Your task to perform on an android device: Search for energizer triple a on bestbuy.com, select the first entry, and add it to the cart. Image 0: 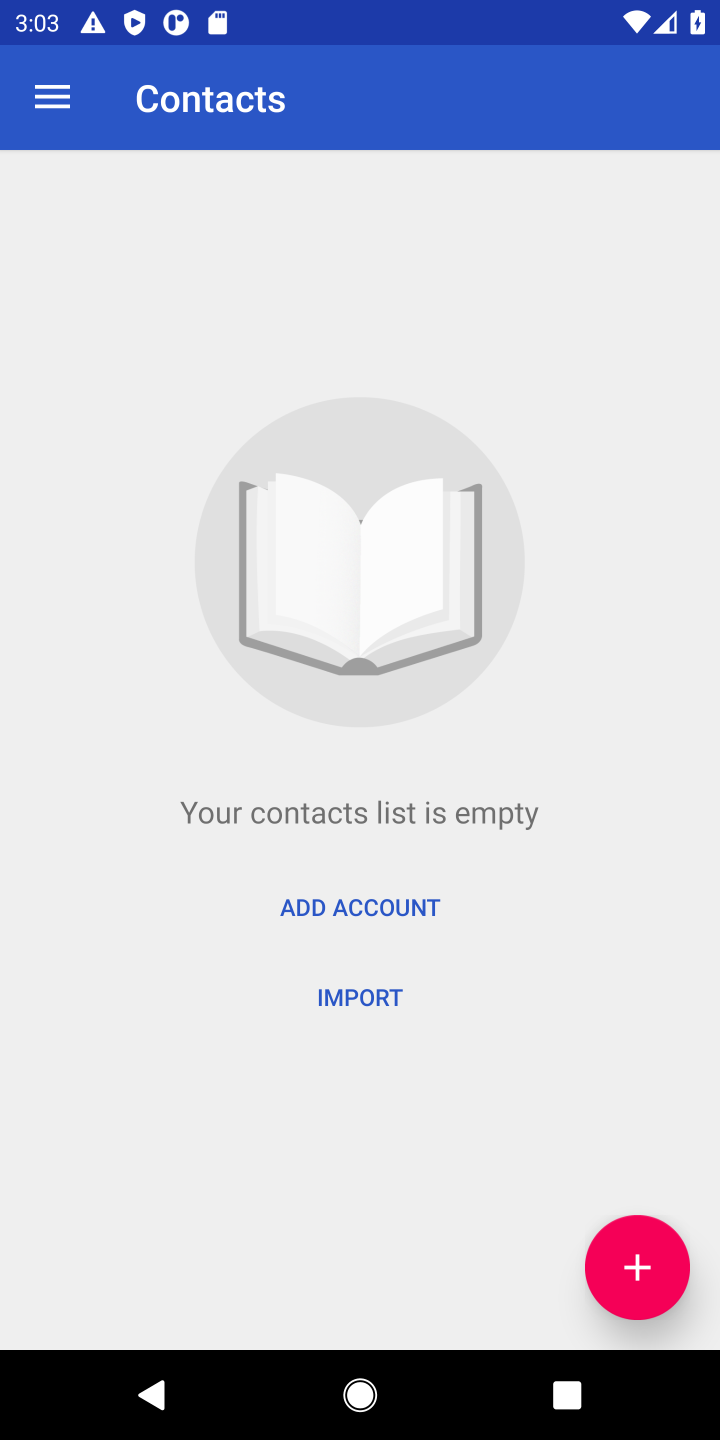
Step 0: press home button
Your task to perform on an android device: Search for energizer triple a on bestbuy.com, select the first entry, and add it to the cart. Image 1: 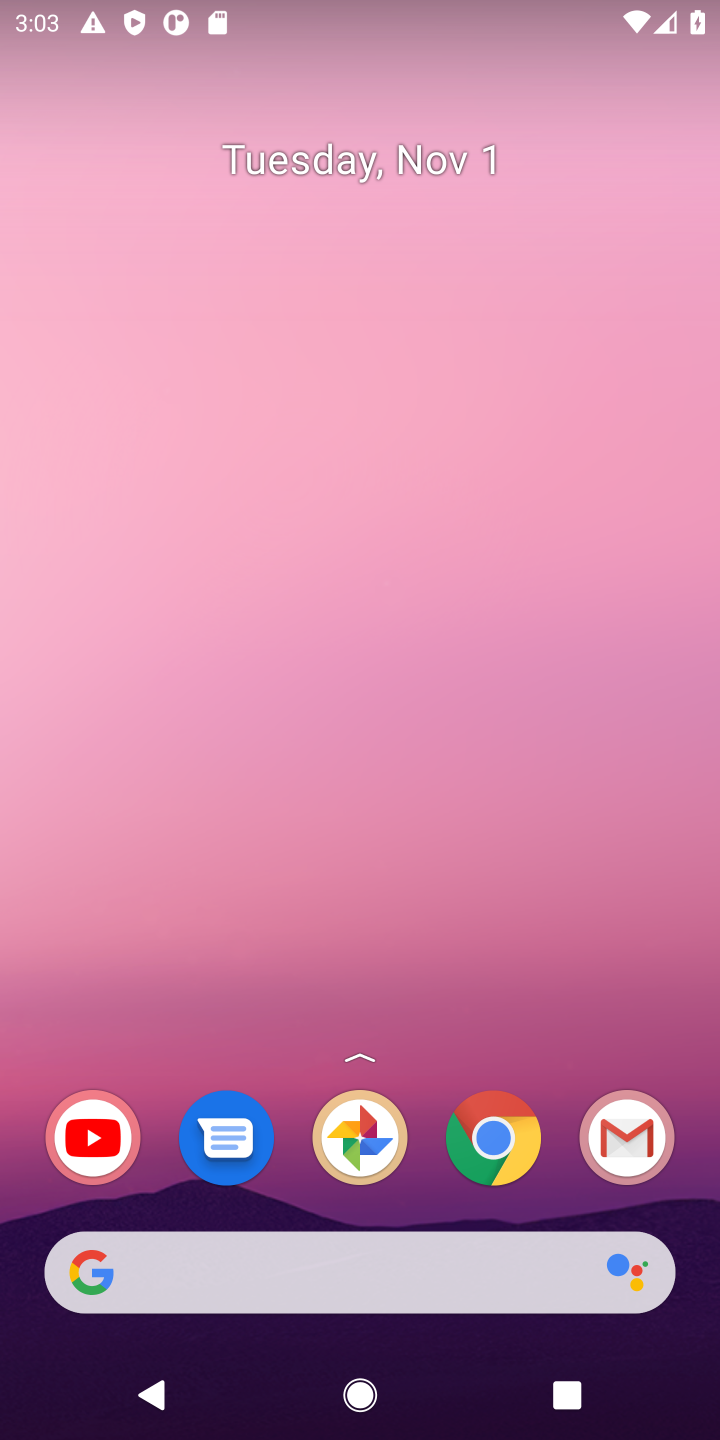
Step 1: click (495, 1143)
Your task to perform on an android device: Search for energizer triple a on bestbuy.com, select the first entry, and add it to the cart. Image 2: 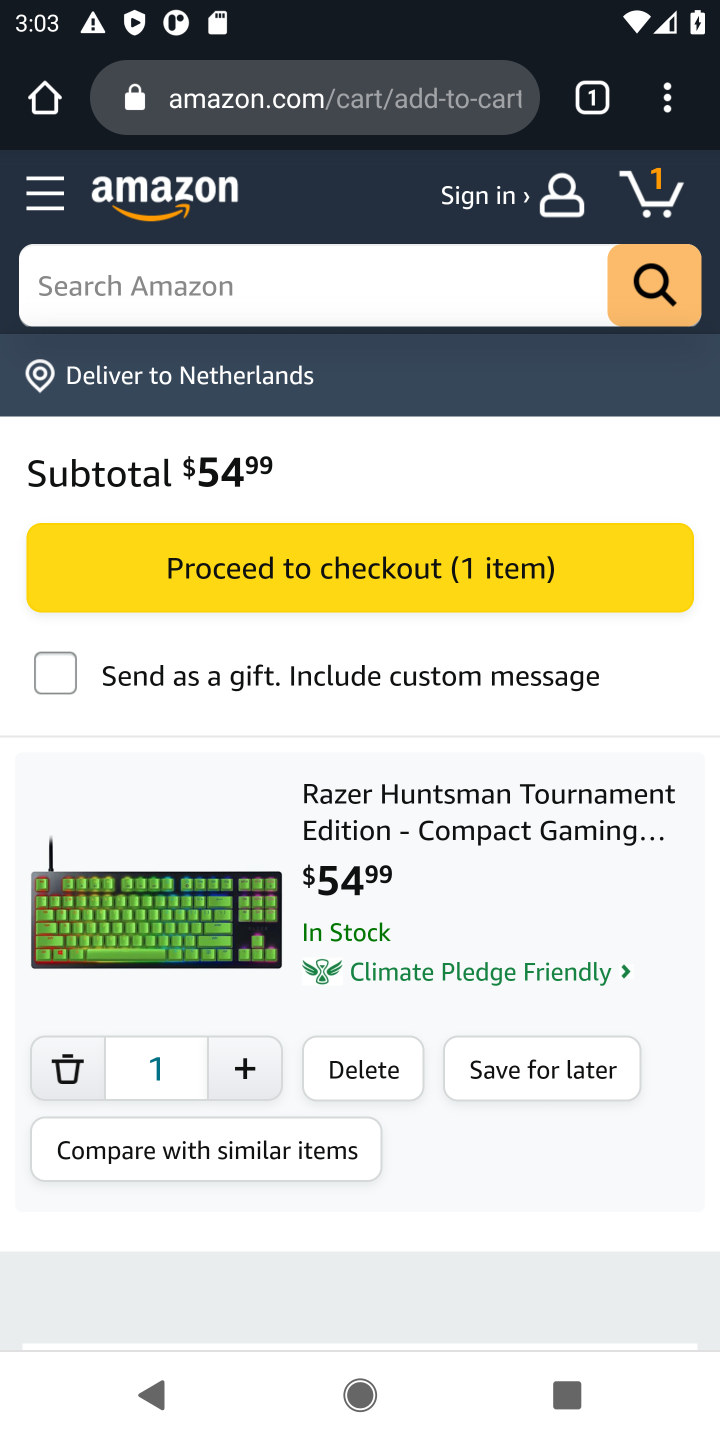
Step 2: click (242, 91)
Your task to perform on an android device: Search for energizer triple a on bestbuy.com, select the first entry, and add it to the cart. Image 3: 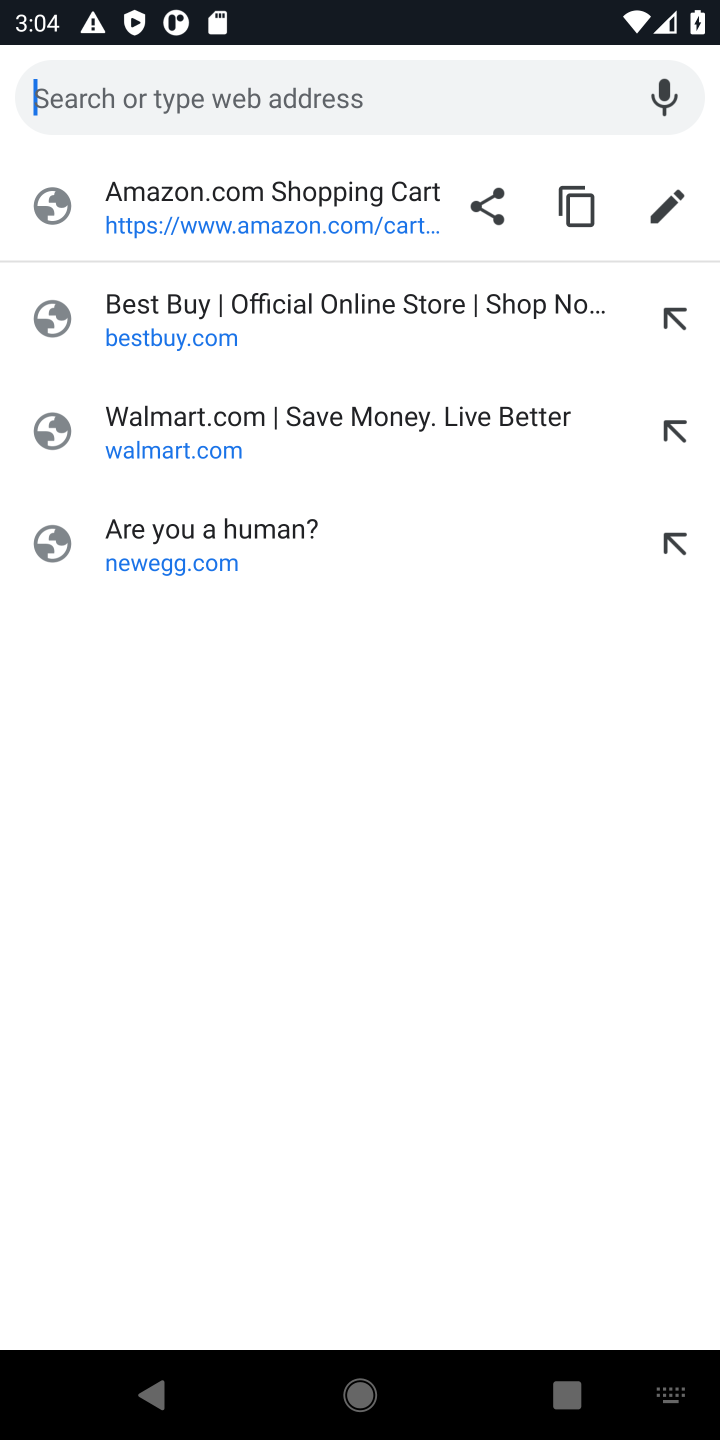
Step 3: type "bestbuy.com"
Your task to perform on an android device: Search for energizer triple a on bestbuy.com, select the first entry, and add it to the cart. Image 4: 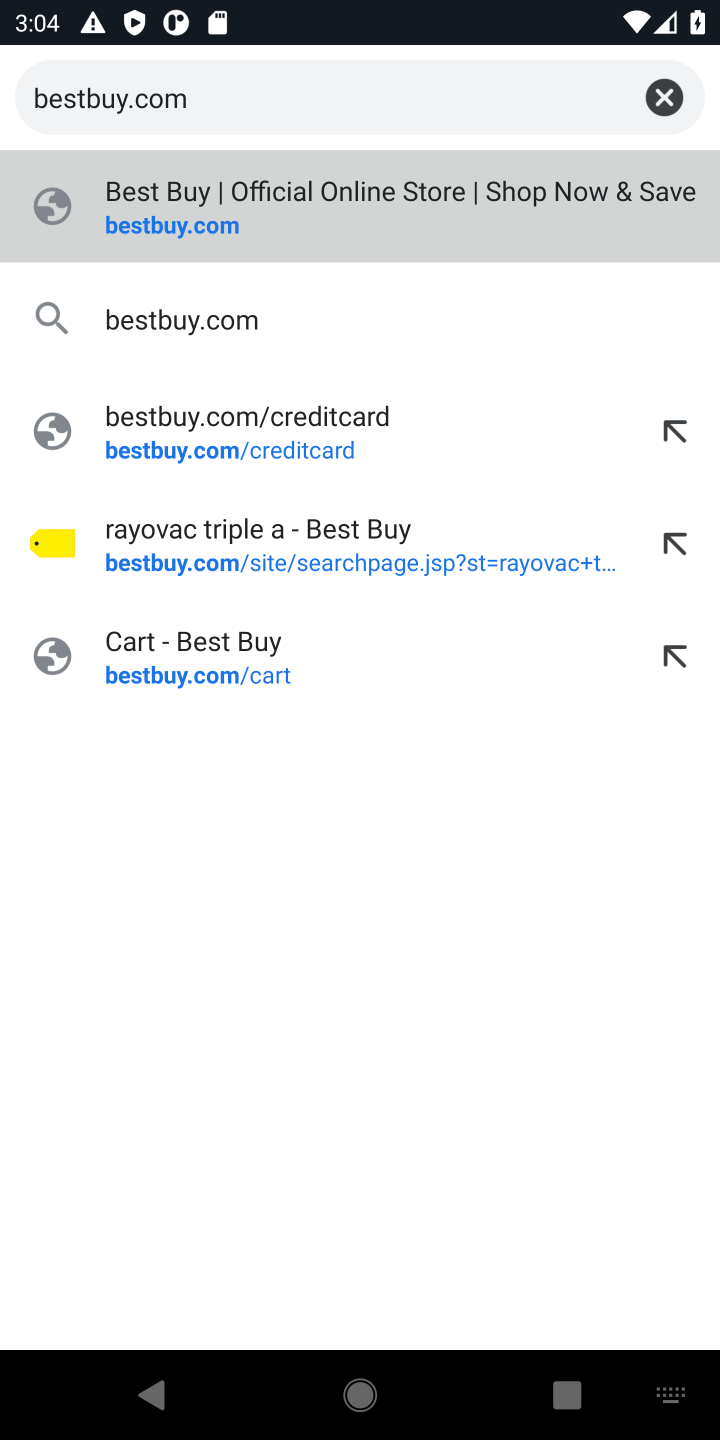
Step 4: click (246, 219)
Your task to perform on an android device: Search for energizer triple a on bestbuy.com, select the first entry, and add it to the cart. Image 5: 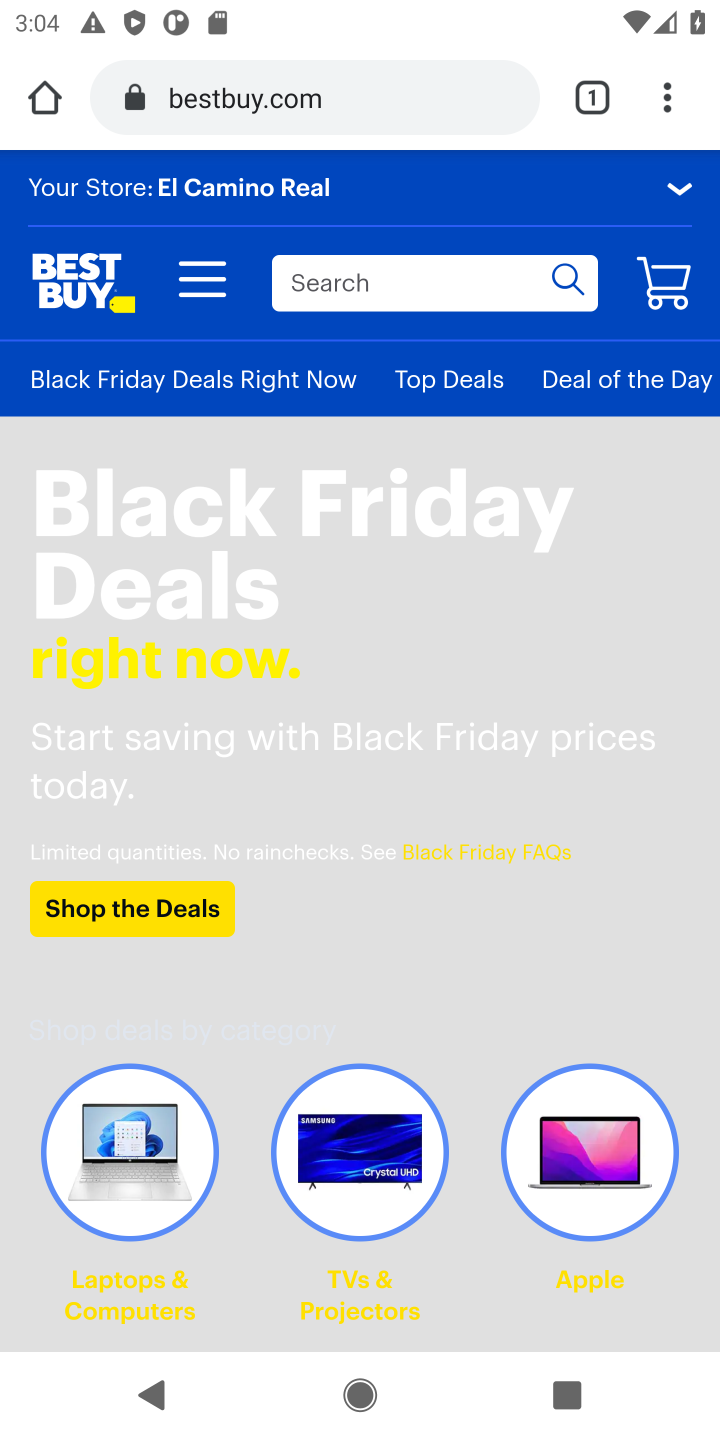
Step 5: click (354, 268)
Your task to perform on an android device: Search for energizer triple a on bestbuy.com, select the first entry, and add it to the cart. Image 6: 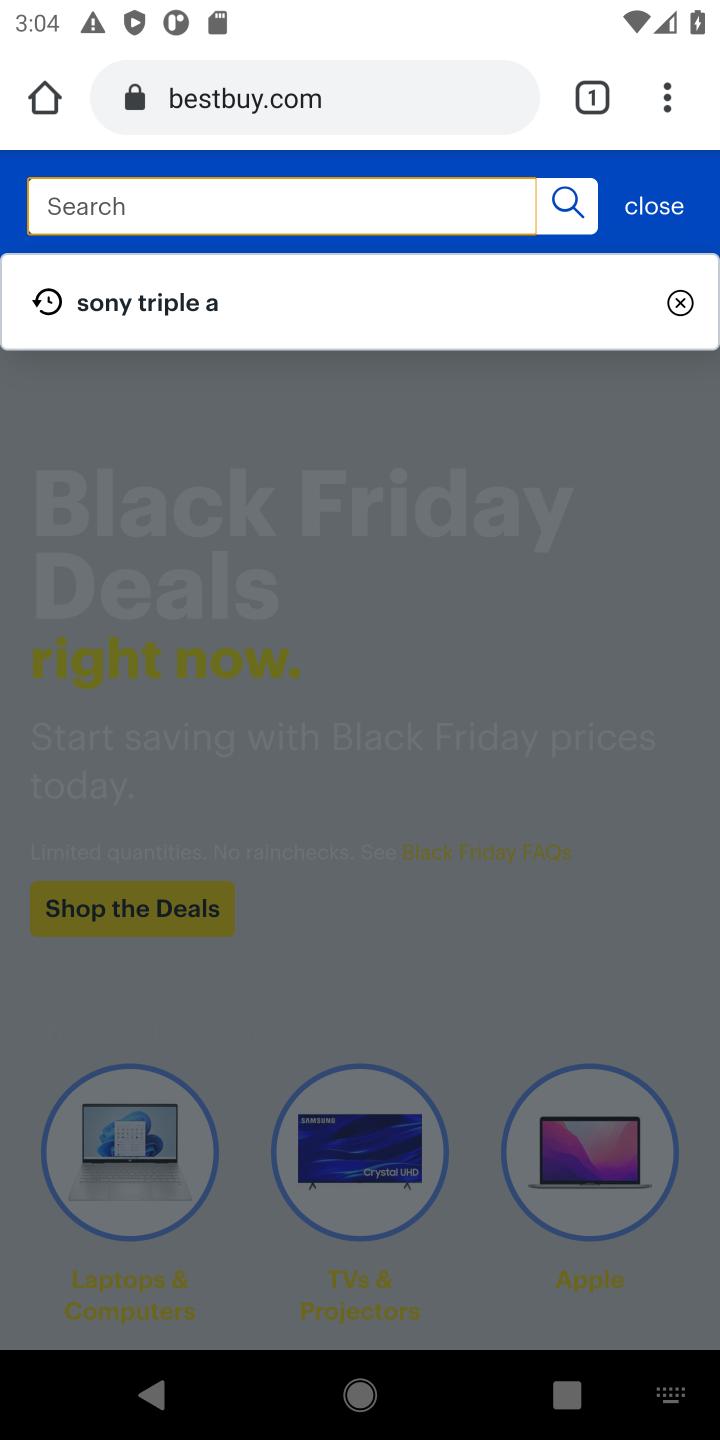
Step 6: type "energizer triple a"
Your task to perform on an android device: Search for energizer triple a on bestbuy.com, select the first entry, and add it to the cart. Image 7: 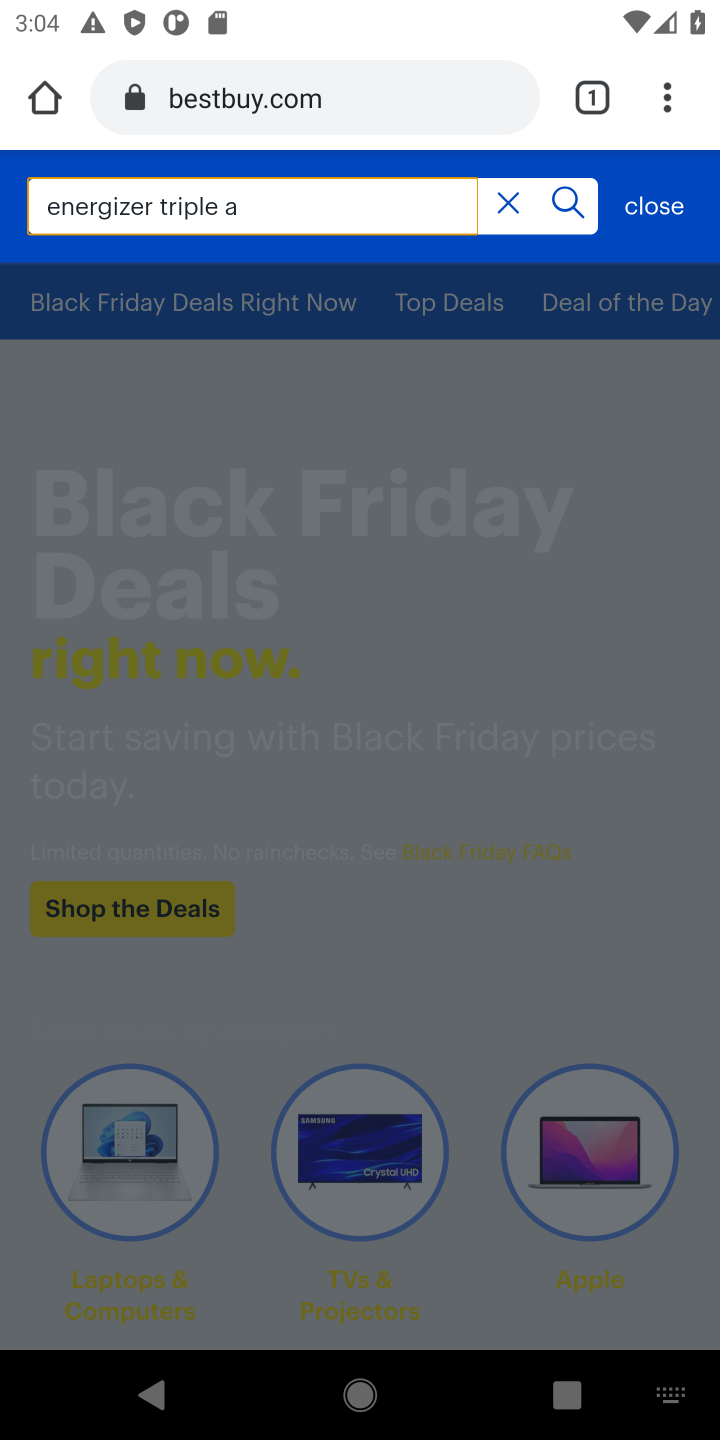
Step 7: click (567, 199)
Your task to perform on an android device: Search for energizer triple a on bestbuy.com, select the first entry, and add it to the cart. Image 8: 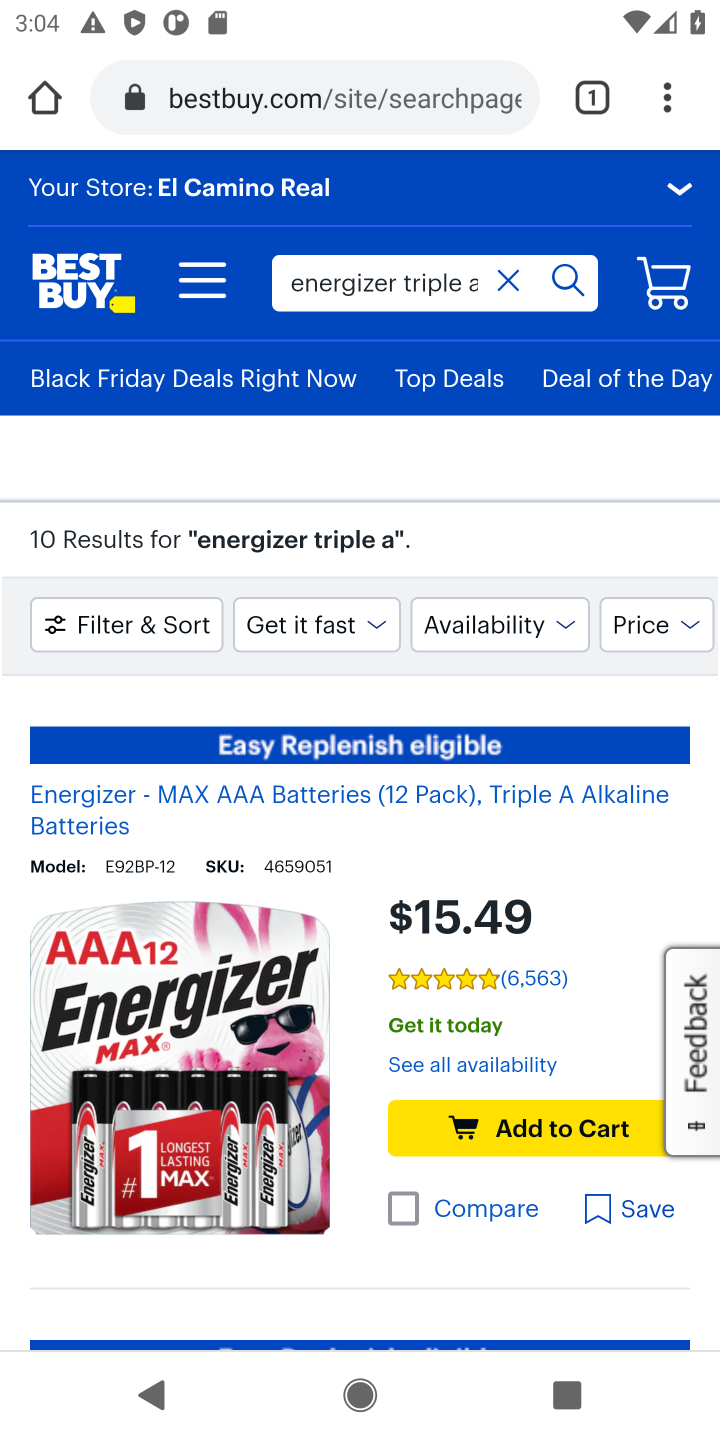
Step 8: click (524, 1120)
Your task to perform on an android device: Search for energizer triple a on bestbuy.com, select the first entry, and add it to the cart. Image 9: 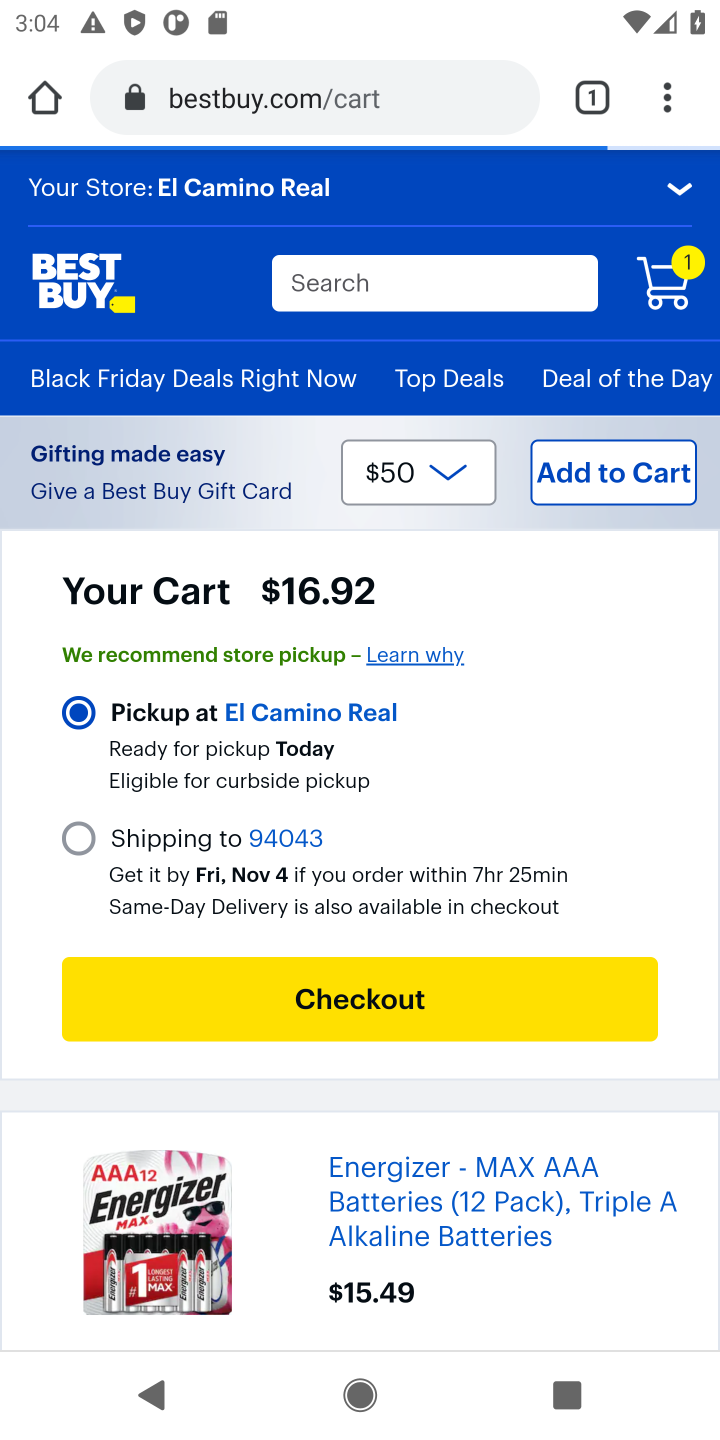
Step 9: task complete